Your task to perform on an android device: make emails show in primary in the gmail app Image 0: 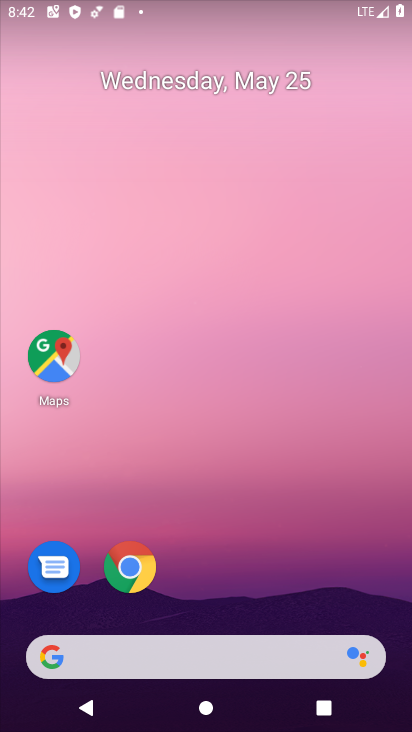
Step 0: drag from (287, 565) to (265, 101)
Your task to perform on an android device: make emails show in primary in the gmail app Image 1: 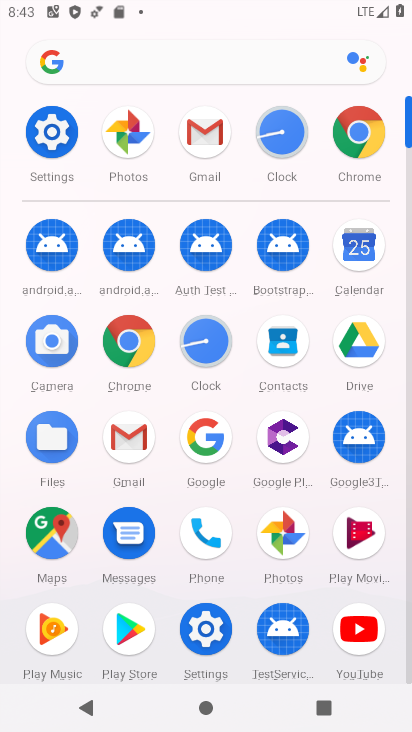
Step 1: click (209, 138)
Your task to perform on an android device: make emails show in primary in the gmail app Image 2: 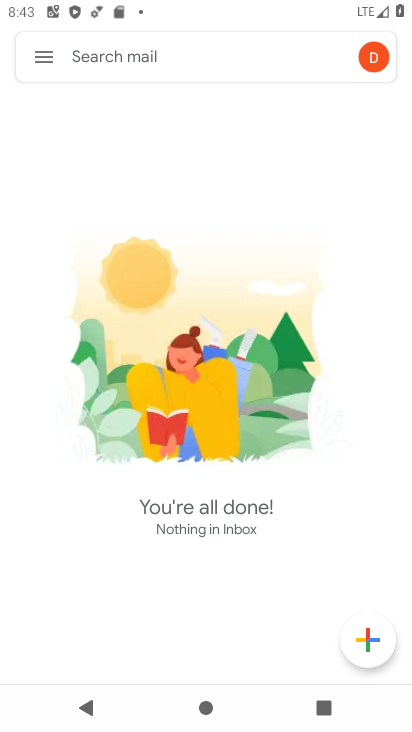
Step 2: click (52, 56)
Your task to perform on an android device: make emails show in primary in the gmail app Image 3: 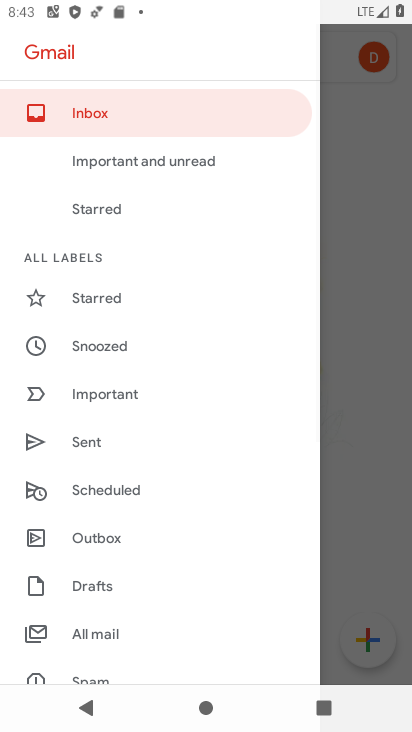
Step 3: drag from (140, 631) to (170, 315)
Your task to perform on an android device: make emails show in primary in the gmail app Image 4: 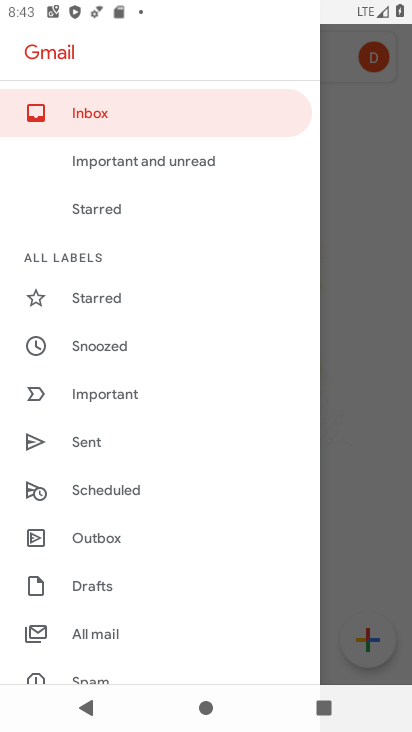
Step 4: drag from (148, 533) to (215, 107)
Your task to perform on an android device: make emails show in primary in the gmail app Image 5: 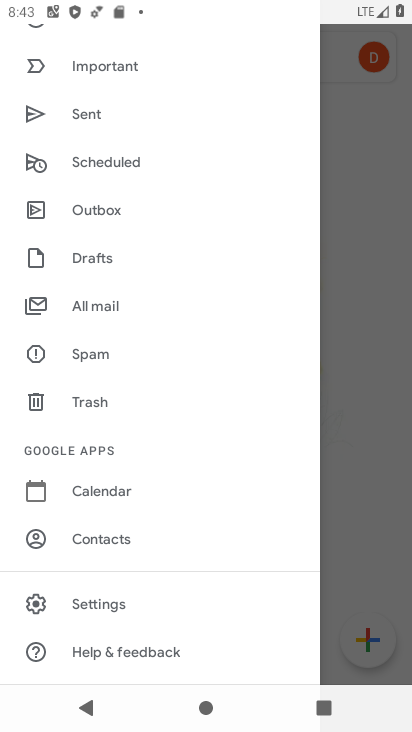
Step 5: click (120, 596)
Your task to perform on an android device: make emails show in primary in the gmail app Image 6: 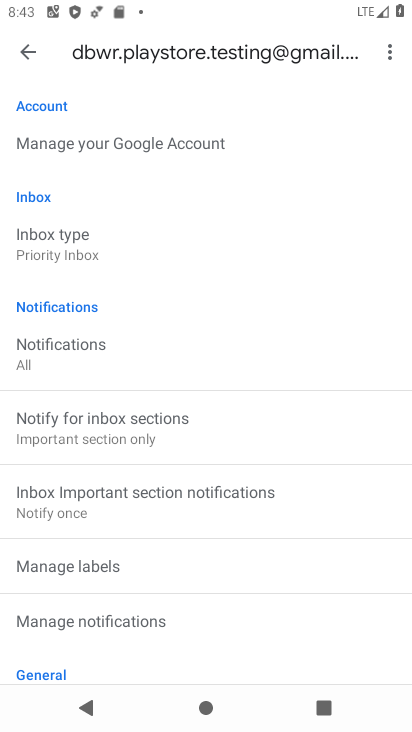
Step 6: click (76, 241)
Your task to perform on an android device: make emails show in primary in the gmail app Image 7: 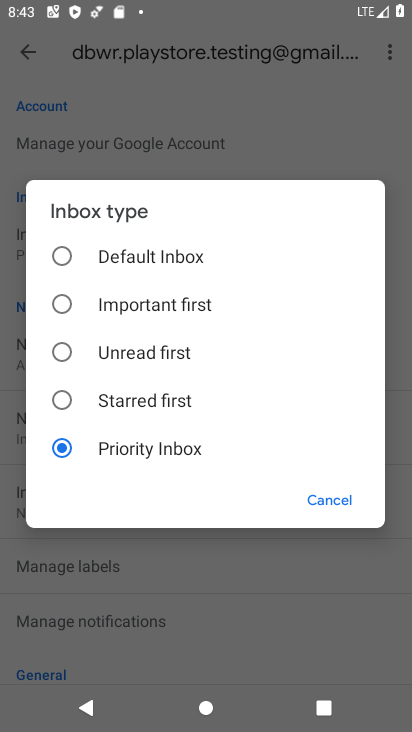
Step 7: click (54, 255)
Your task to perform on an android device: make emails show in primary in the gmail app Image 8: 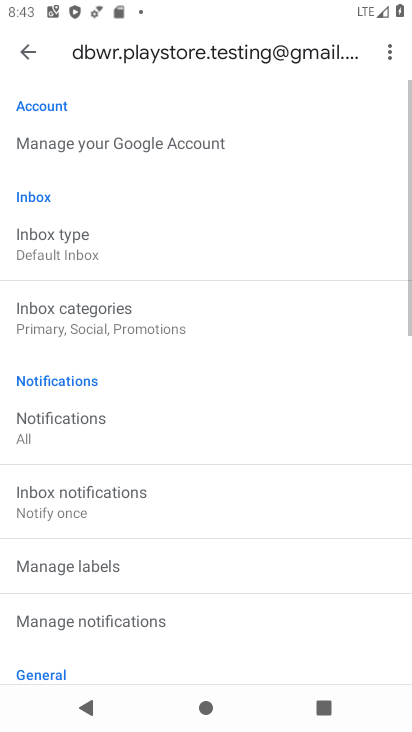
Step 8: click (65, 325)
Your task to perform on an android device: make emails show in primary in the gmail app Image 9: 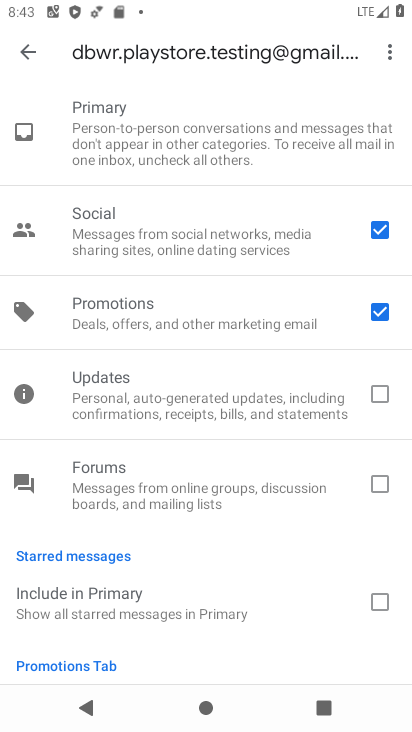
Step 9: click (385, 313)
Your task to perform on an android device: make emails show in primary in the gmail app Image 10: 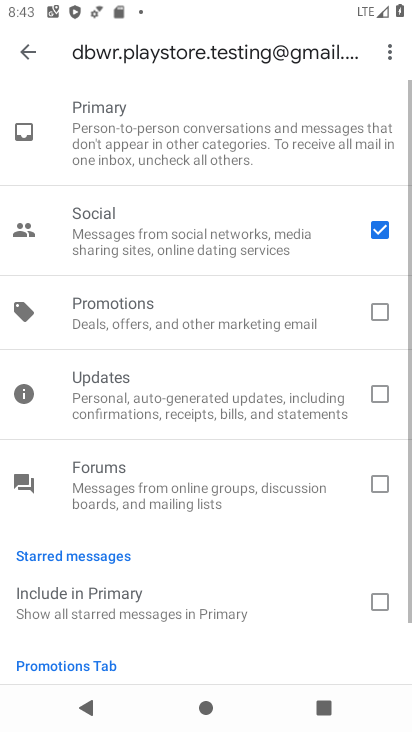
Step 10: click (380, 228)
Your task to perform on an android device: make emails show in primary in the gmail app Image 11: 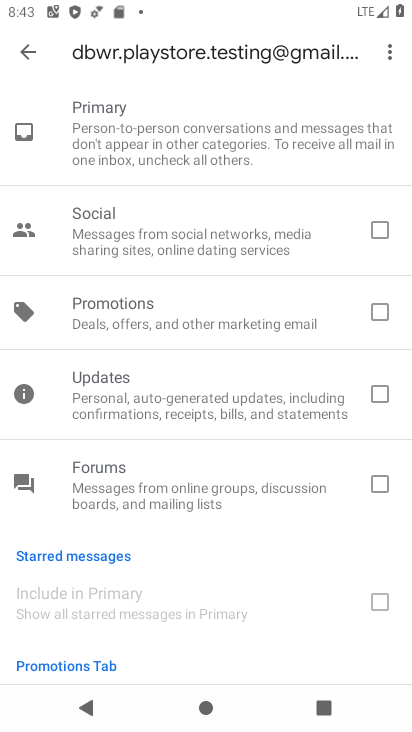
Step 11: task complete